Your task to perform on an android device: open chrome privacy settings Image 0: 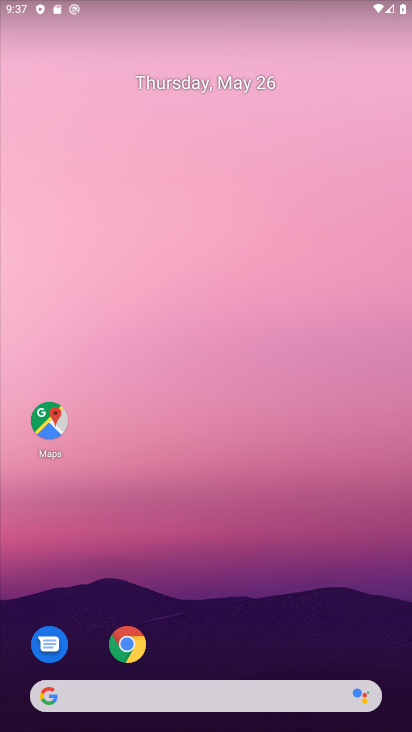
Step 0: click (143, 647)
Your task to perform on an android device: open chrome privacy settings Image 1: 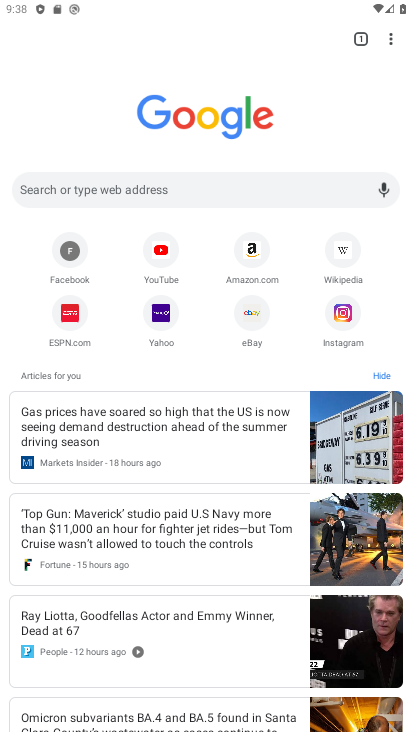
Step 1: drag from (389, 43) to (271, 323)
Your task to perform on an android device: open chrome privacy settings Image 2: 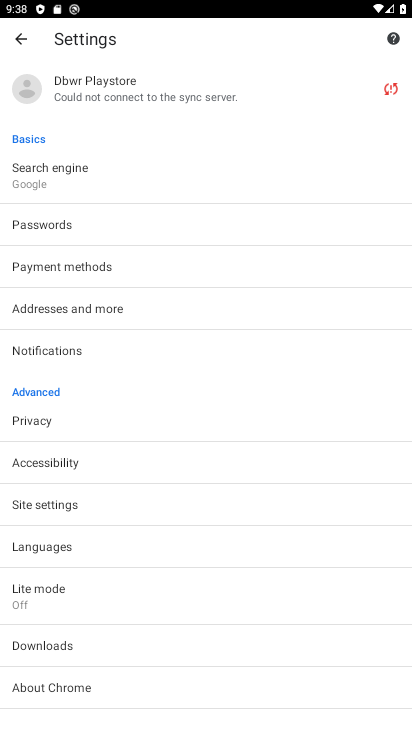
Step 2: drag from (155, 637) to (177, 452)
Your task to perform on an android device: open chrome privacy settings Image 3: 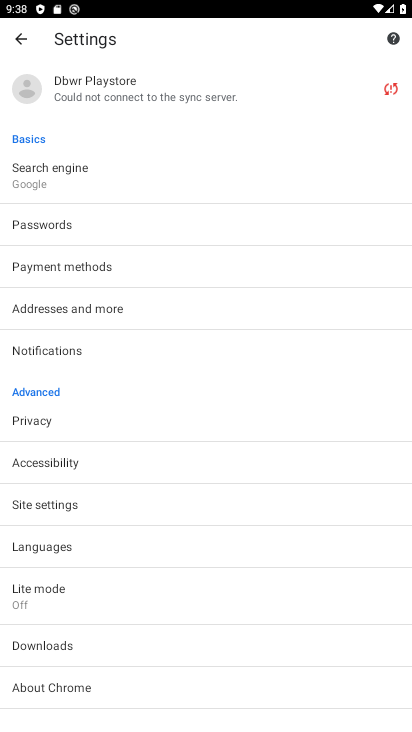
Step 3: click (124, 421)
Your task to perform on an android device: open chrome privacy settings Image 4: 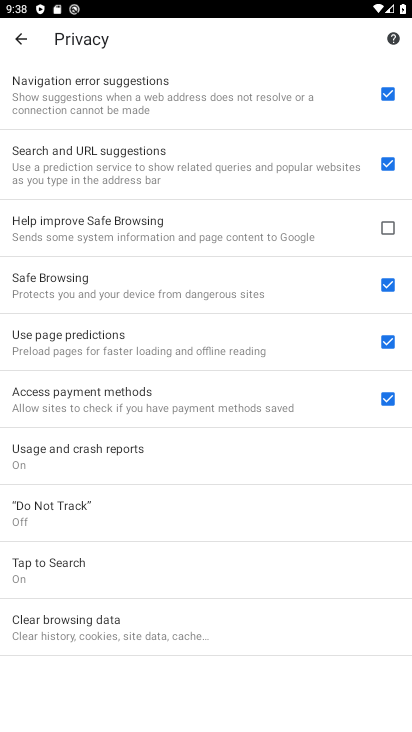
Step 4: task complete